Your task to perform on an android device: Go to accessibility settings Image 0: 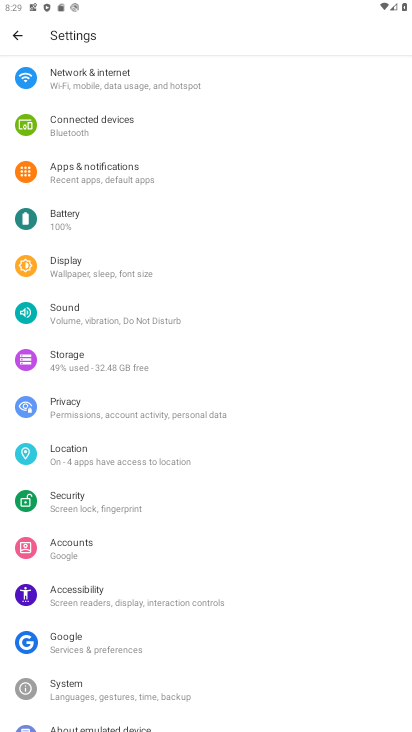
Step 0: click (107, 602)
Your task to perform on an android device: Go to accessibility settings Image 1: 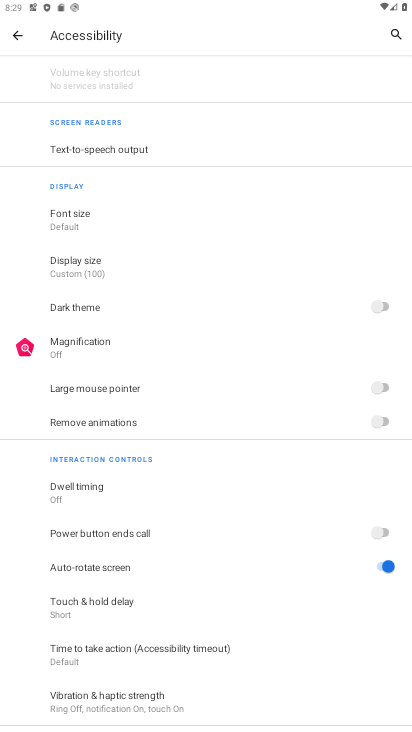
Step 1: task complete